Your task to perform on an android device: Search for usb-c to usb-a on ebay.com, select the first entry, and add it to the cart. Image 0: 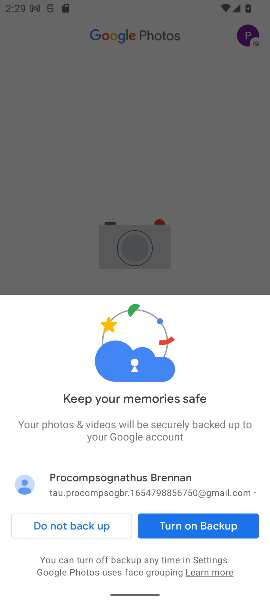
Step 0: press home button
Your task to perform on an android device: Search for usb-c to usb-a on ebay.com, select the first entry, and add it to the cart. Image 1: 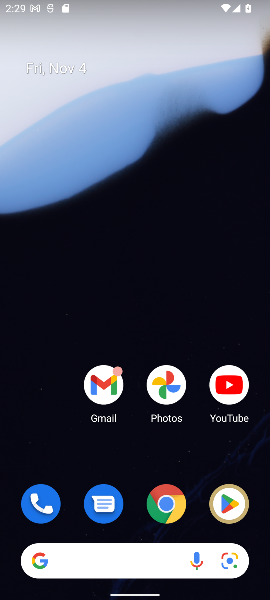
Step 1: click (167, 510)
Your task to perform on an android device: Search for usb-c to usb-a on ebay.com, select the first entry, and add it to the cart. Image 2: 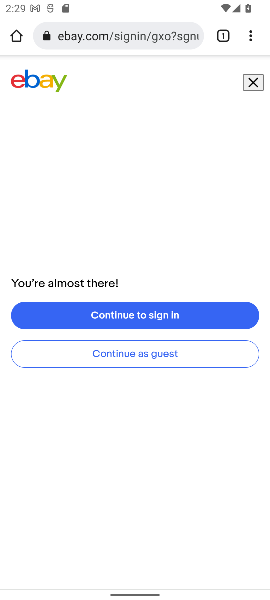
Step 2: click (251, 83)
Your task to perform on an android device: Search for usb-c to usb-a on ebay.com, select the first entry, and add it to the cart. Image 3: 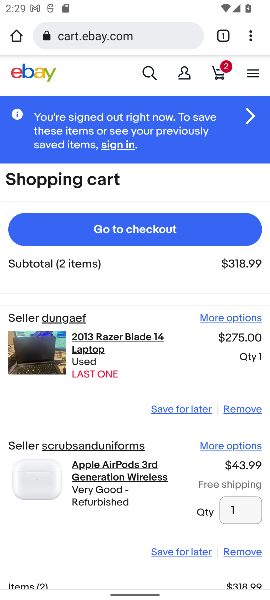
Step 3: click (154, 69)
Your task to perform on an android device: Search for usb-c to usb-a on ebay.com, select the first entry, and add it to the cart. Image 4: 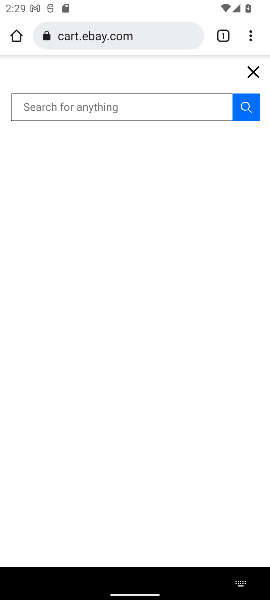
Step 4: type "usb-c to usb-a"
Your task to perform on an android device: Search for usb-c to usb-a on ebay.com, select the first entry, and add it to the cart. Image 5: 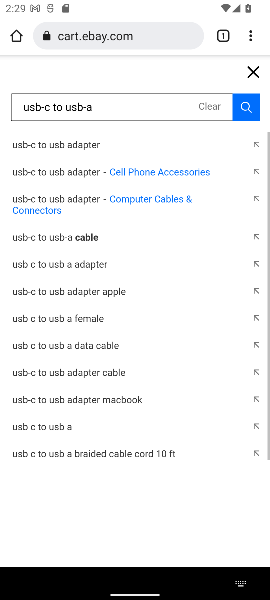
Step 5: click (240, 114)
Your task to perform on an android device: Search for usb-c to usb-a on ebay.com, select the first entry, and add it to the cart. Image 6: 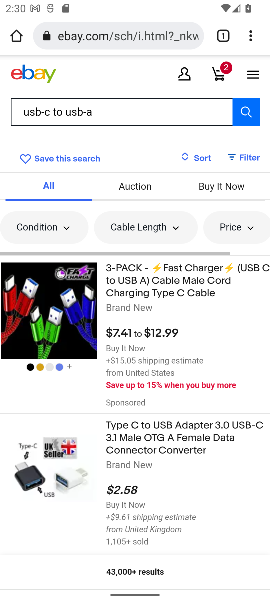
Step 6: click (55, 292)
Your task to perform on an android device: Search for usb-c to usb-a on ebay.com, select the first entry, and add it to the cart. Image 7: 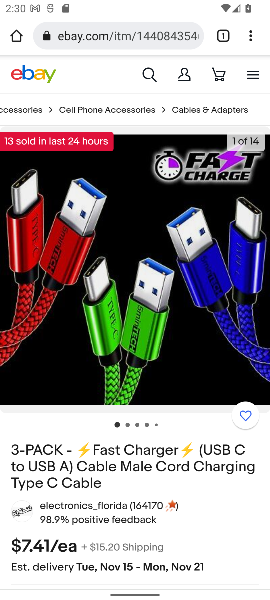
Step 7: drag from (100, 343) to (137, 99)
Your task to perform on an android device: Search for usb-c to usb-a on ebay.com, select the first entry, and add it to the cart. Image 8: 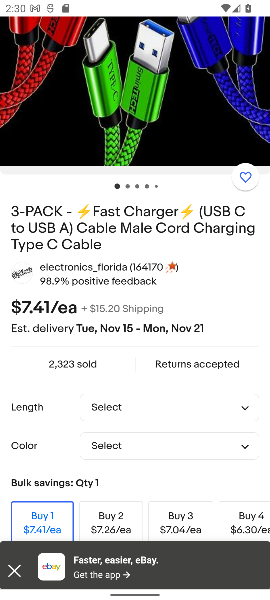
Step 8: drag from (134, 301) to (147, 102)
Your task to perform on an android device: Search for usb-c to usb-a on ebay.com, select the first entry, and add it to the cart. Image 9: 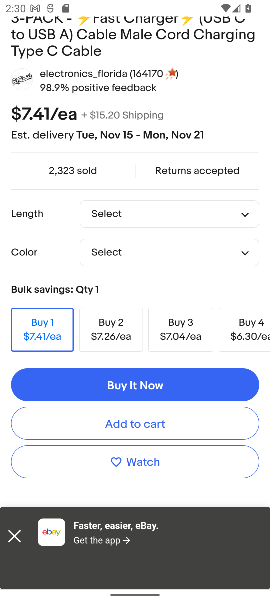
Step 9: click (116, 422)
Your task to perform on an android device: Search for usb-c to usb-a on ebay.com, select the first entry, and add it to the cart. Image 10: 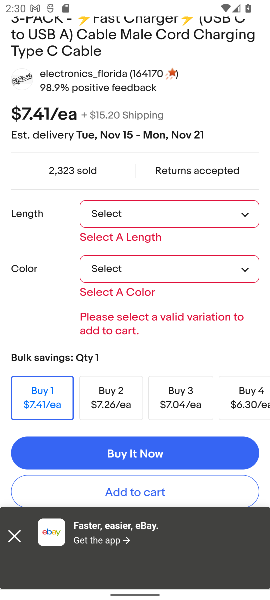
Step 10: click (243, 211)
Your task to perform on an android device: Search for usb-c to usb-a on ebay.com, select the first entry, and add it to the cart. Image 11: 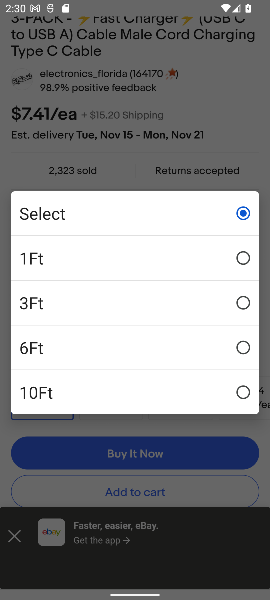
Step 11: click (37, 260)
Your task to perform on an android device: Search for usb-c to usb-a on ebay.com, select the first entry, and add it to the cart. Image 12: 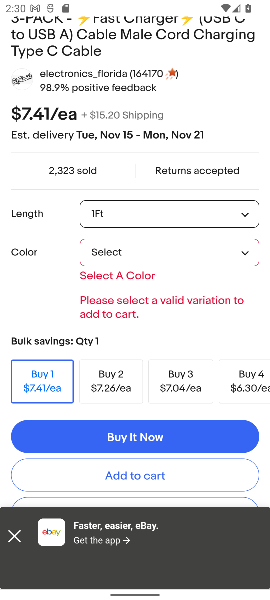
Step 12: click (246, 258)
Your task to perform on an android device: Search for usb-c to usb-a on ebay.com, select the first entry, and add it to the cart. Image 13: 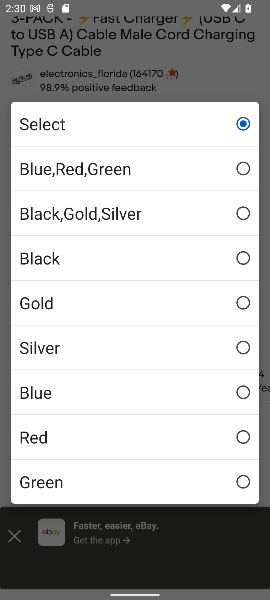
Step 13: click (131, 272)
Your task to perform on an android device: Search for usb-c to usb-a on ebay.com, select the first entry, and add it to the cart. Image 14: 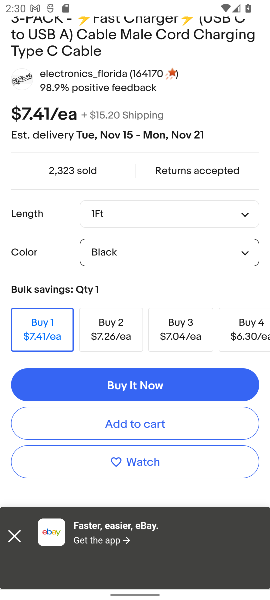
Step 14: click (49, 263)
Your task to perform on an android device: Search for usb-c to usb-a on ebay.com, select the first entry, and add it to the cart. Image 15: 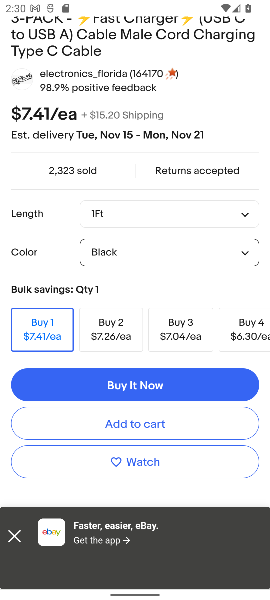
Step 15: click (118, 425)
Your task to perform on an android device: Search for usb-c to usb-a on ebay.com, select the first entry, and add it to the cart. Image 16: 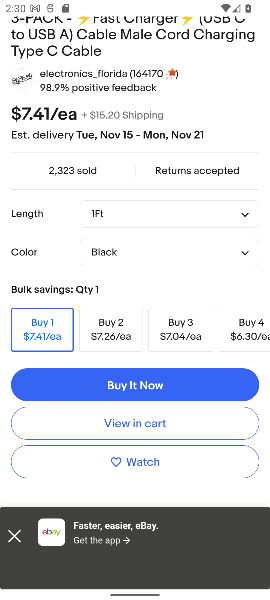
Step 16: task complete